Your task to perform on an android device: What's the weather? Image 0: 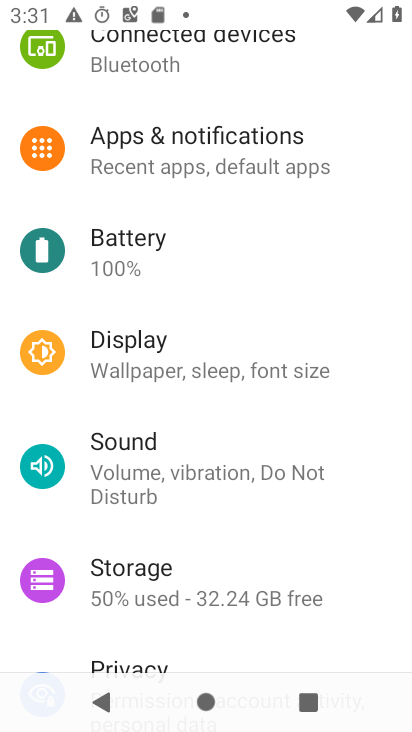
Step 0: press home button
Your task to perform on an android device: What's the weather? Image 1: 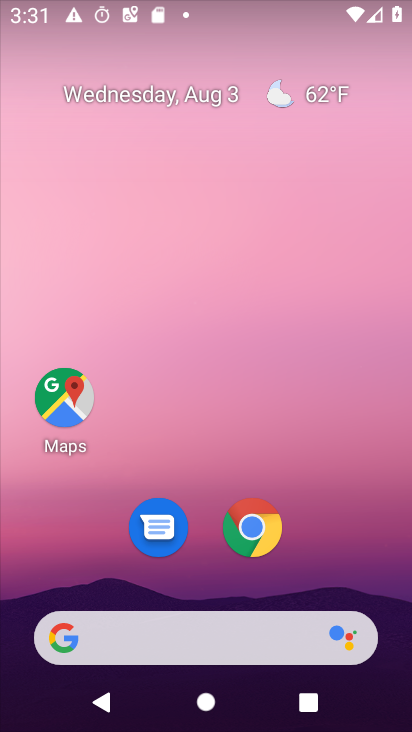
Step 1: drag from (333, 552) to (284, 88)
Your task to perform on an android device: What's the weather? Image 2: 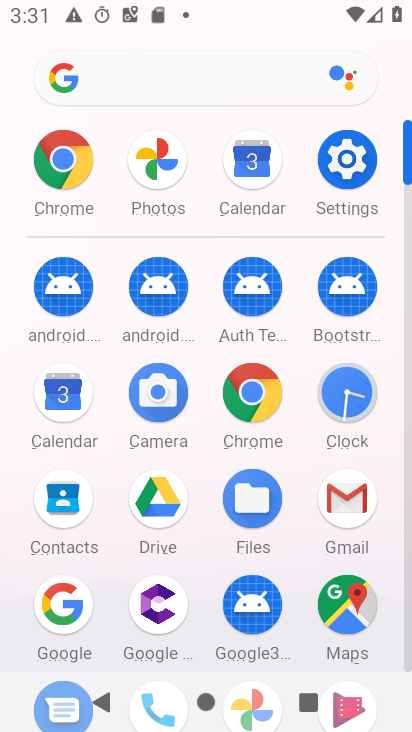
Step 2: click (250, 391)
Your task to perform on an android device: What's the weather? Image 3: 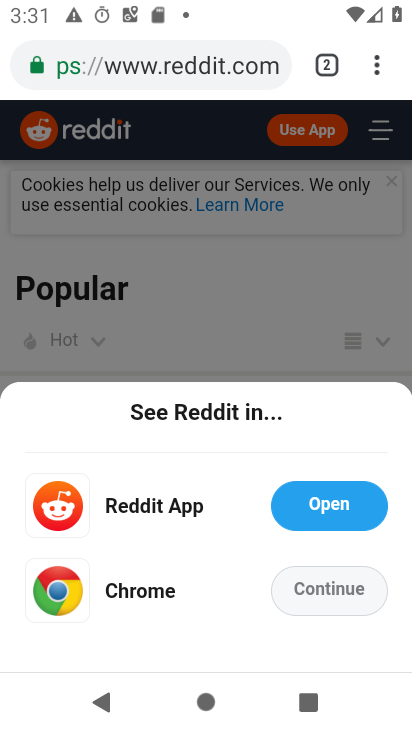
Step 3: click (201, 60)
Your task to perform on an android device: What's the weather? Image 4: 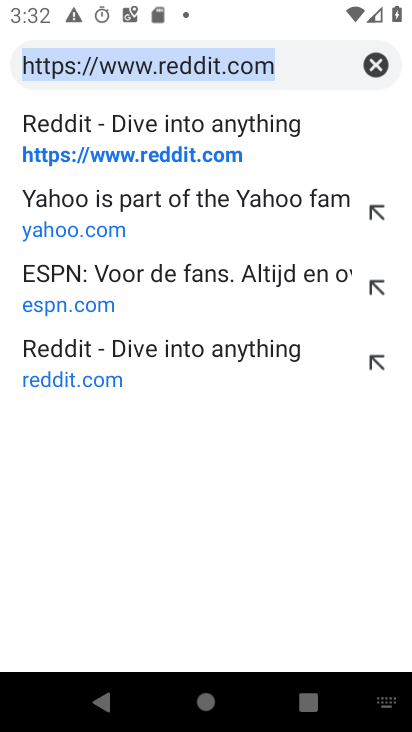
Step 4: type "Weather"
Your task to perform on an android device: What's the weather? Image 5: 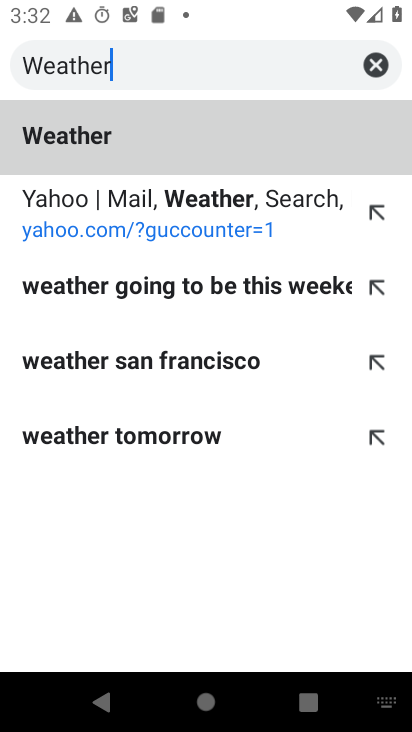
Step 5: click (92, 144)
Your task to perform on an android device: What's the weather? Image 6: 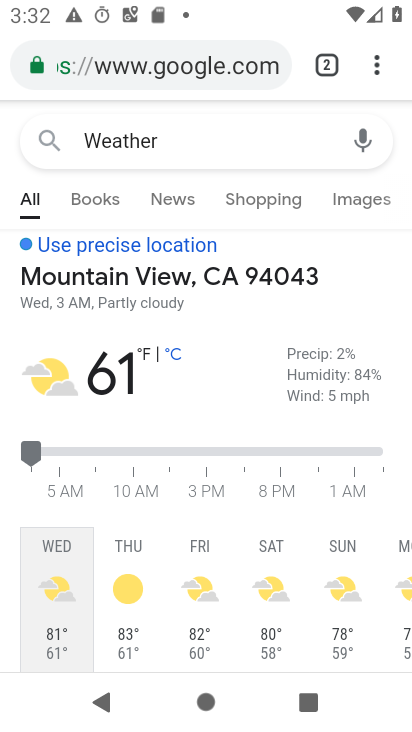
Step 6: task complete